Your task to perform on an android device: open app "Yahoo Mail" (install if not already installed) Image 0: 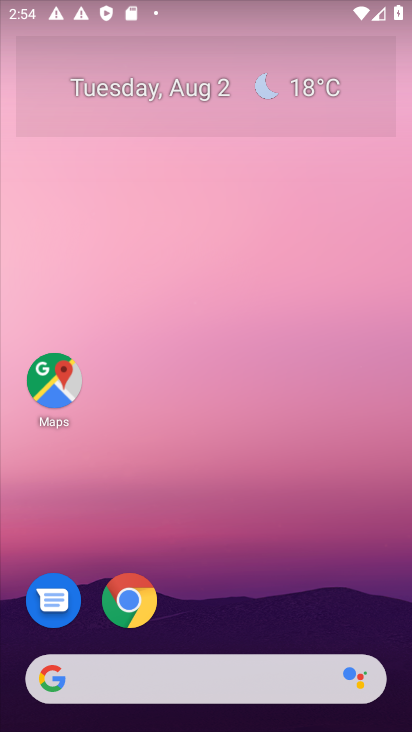
Step 0: drag from (224, 643) to (203, 51)
Your task to perform on an android device: open app "Yahoo Mail" (install if not already installed) Image 1: 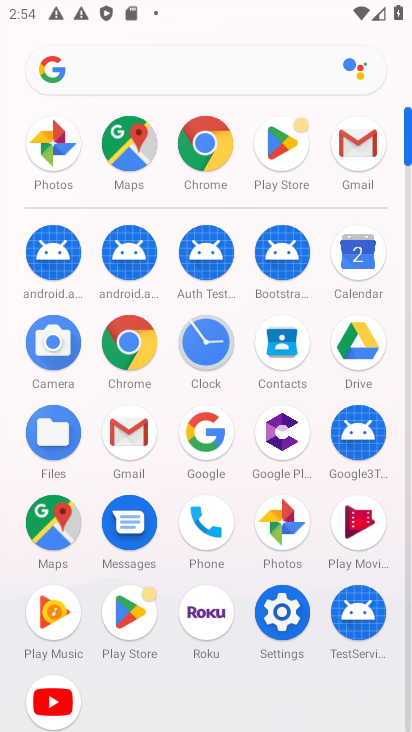
Step 1: click (276, 143)
Your task to perform on an android device: open app "Yahoo Mail" (install if not already installed) Image 2: 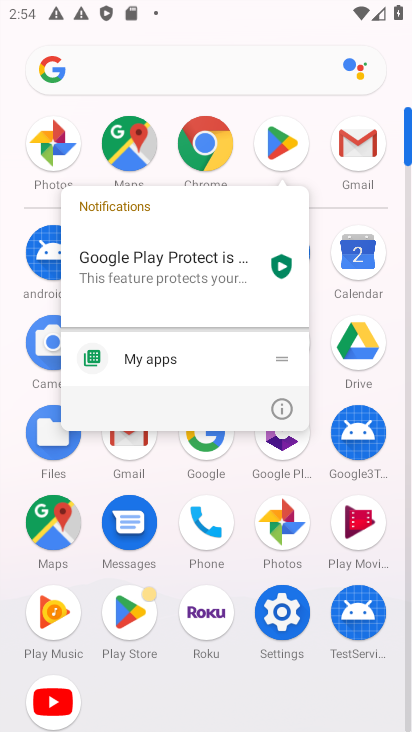
Step 2: click (276, 143)
Your task to perform on an android device: open app "Yahoo Mail" (install if not already installed) Image 3: 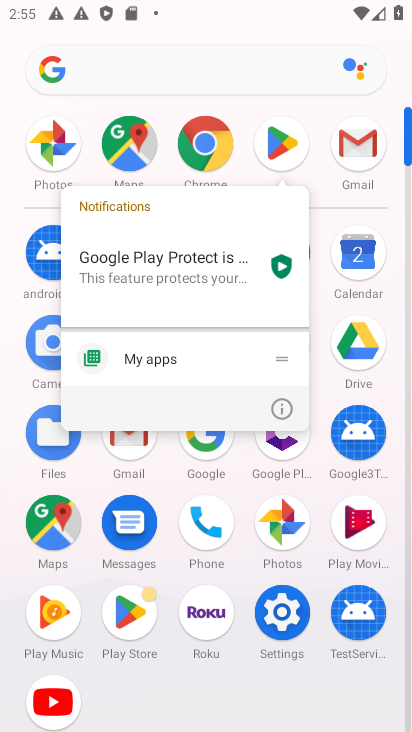
Step 3: click (276, 143)
Your task to perform on an android device: open app "Yahoo Mail" (install if not already installed) Image 4: 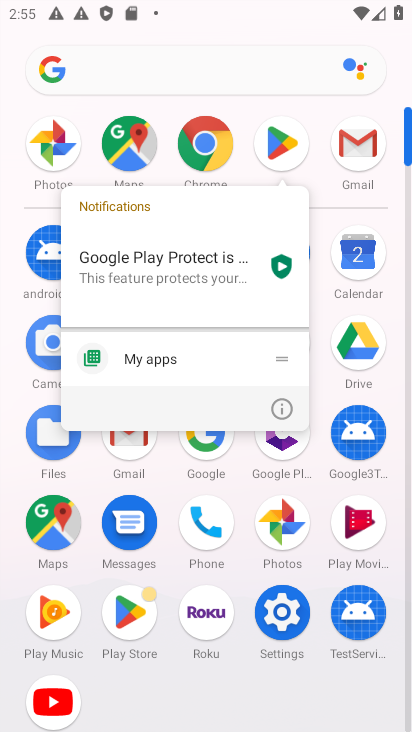
Step 4: click (307, 132)
Your task to perform on an android device: open app "Yahoo Mail" (install if not already installed) Image 5: 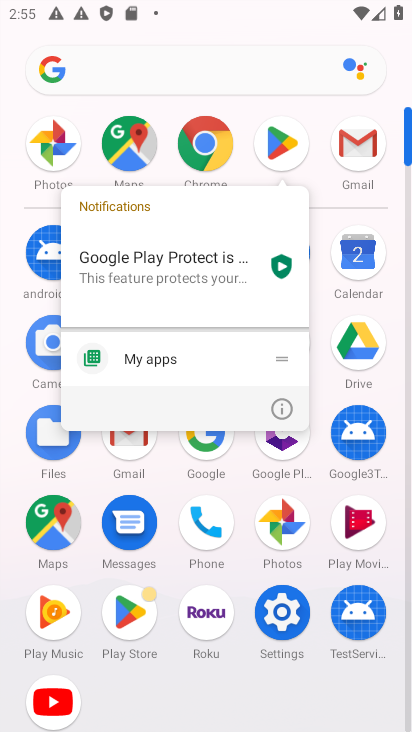
Step 5: click (264, 127)
Your task to perform on an android device: open app "Yahoo Mail" (install if not already installed) Image 6: 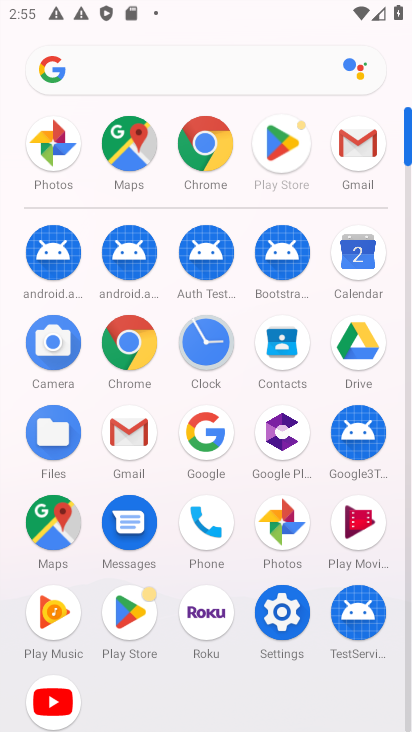
Step 6: click (264, 127)
Your task to perform on an android device: open app "Yahoo Mail" (install if not already installed) Image 7: 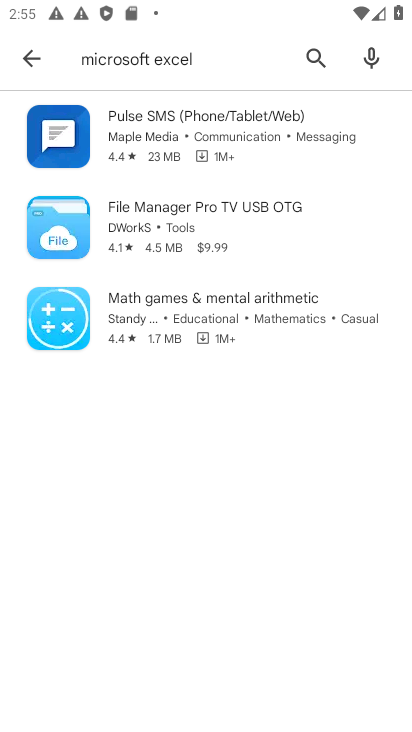
Step 7: click (330, 65)
Your task to perform on an android device: open app "Yahoo Mail" (install if not already installed) Image 8: 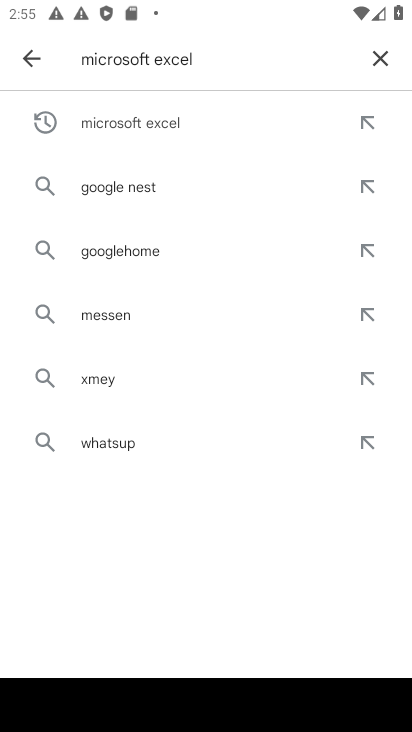
Step 8: click (378, 57)
Your task to perform on an android device: open app "Yahoo Mail" (install if not already installed) Image 9: 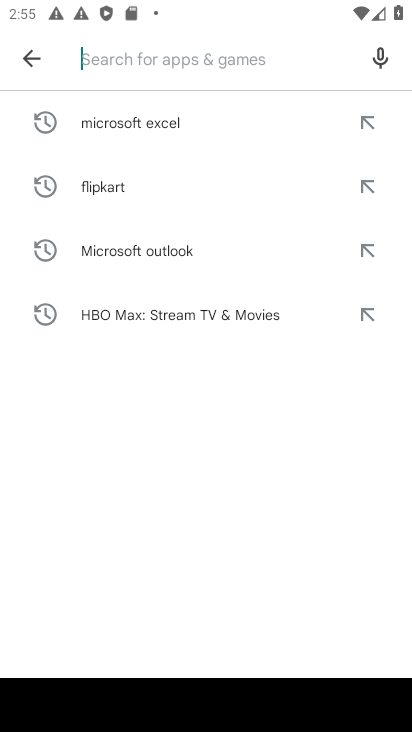
Step 9: type "yahoo mail "
Your task to perform on an android device: open app "Yahoo Mail" (install if not already installed) Image 10: 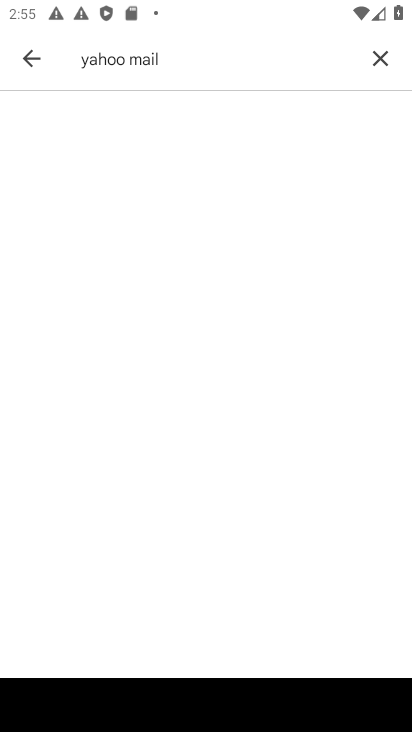
Step 10: press enter
Your task to perform on an android device: open app "Yahoo Mail" (install if not already installed) Image 11: 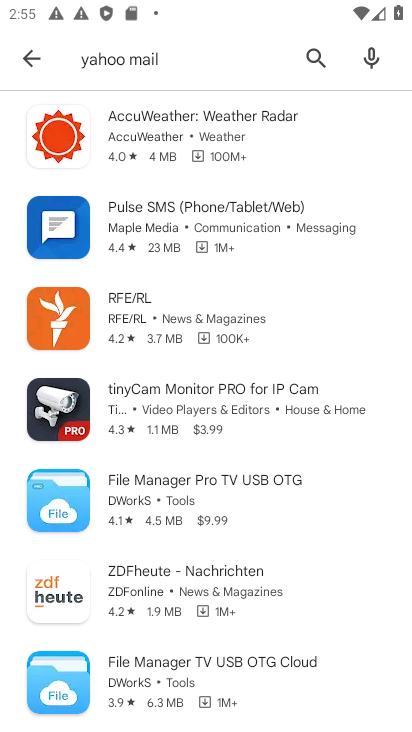
Step 11: task complete